Your task to perform on an android device: Search for the best value 4K TV on Best Buy Image 0: 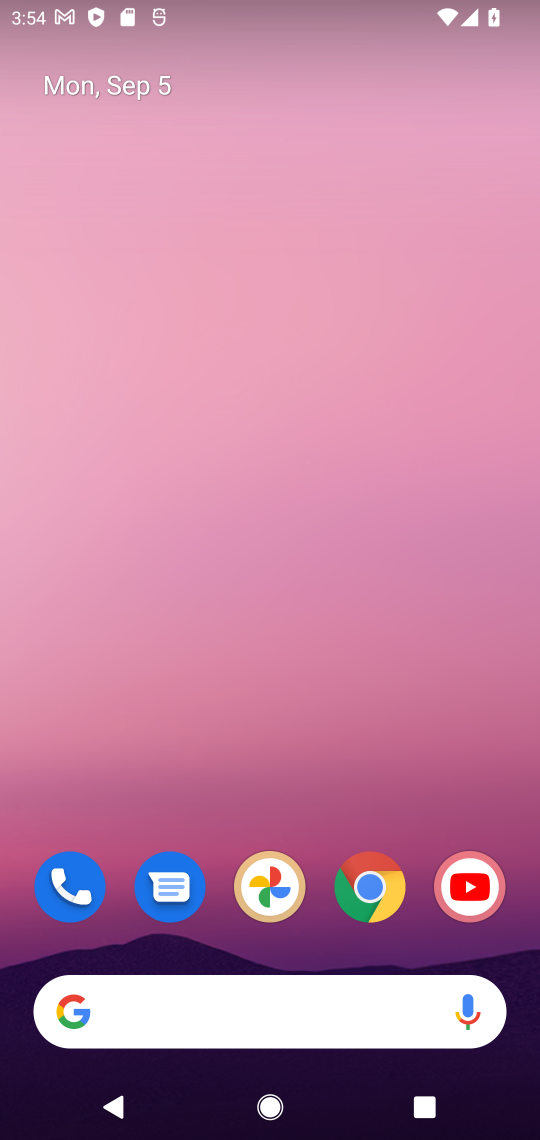
Step 0: drag from (314, 803) to (187, 4)
Your task to perform on an android device: Search for the best value 4K TV on Best Buy Image 1: 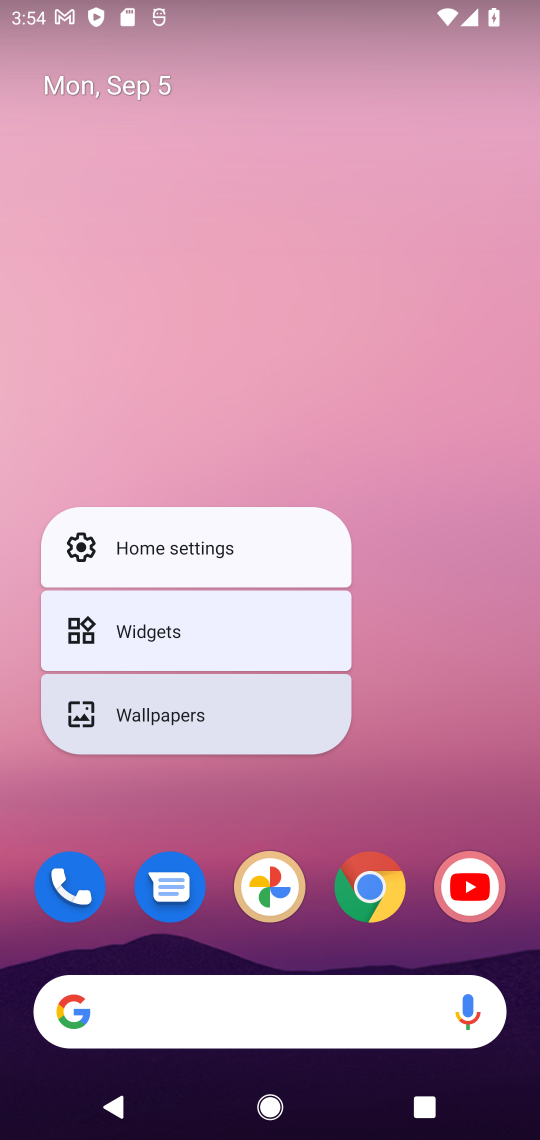
Step 1: click (396, 390)
Your task to perform on an android device: Search for the best value 4K TV on Best Buy Image 2: 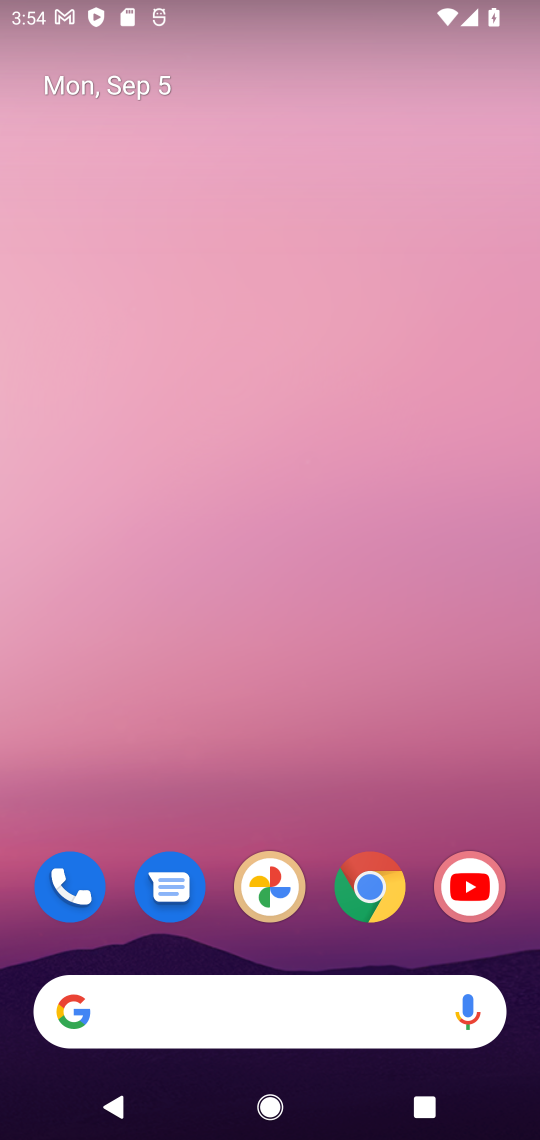
Step 2: drag from (339, 792) to (285, 73)
Your task to perform on an android device: Search for the best value 4K TV on Best Buy Image 3: 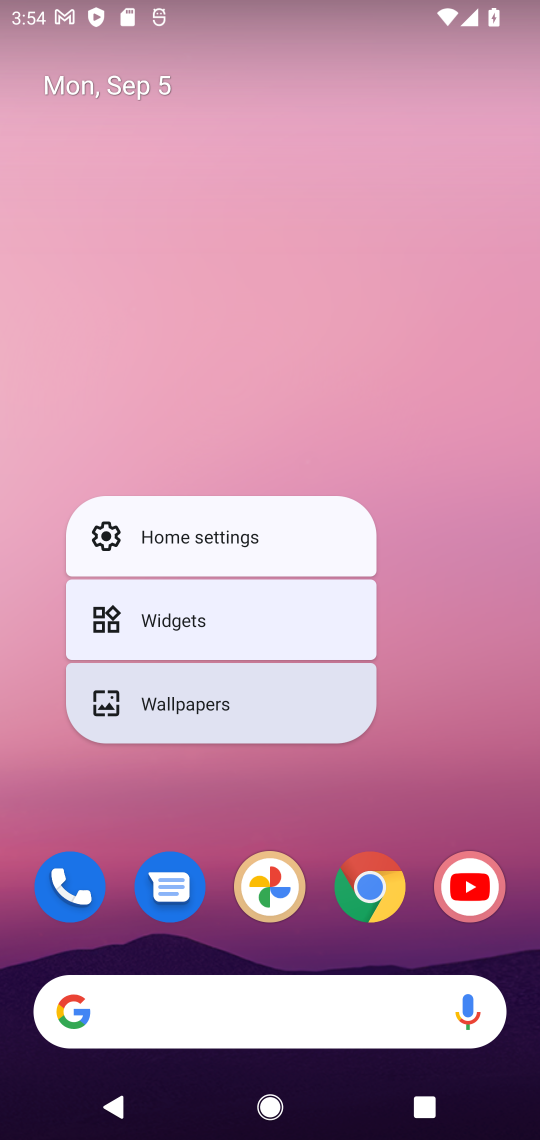
Step 3: click (456, 325)
Your task to perform on an android device: Search for the best value 4K TV on Best Buy Image 4: 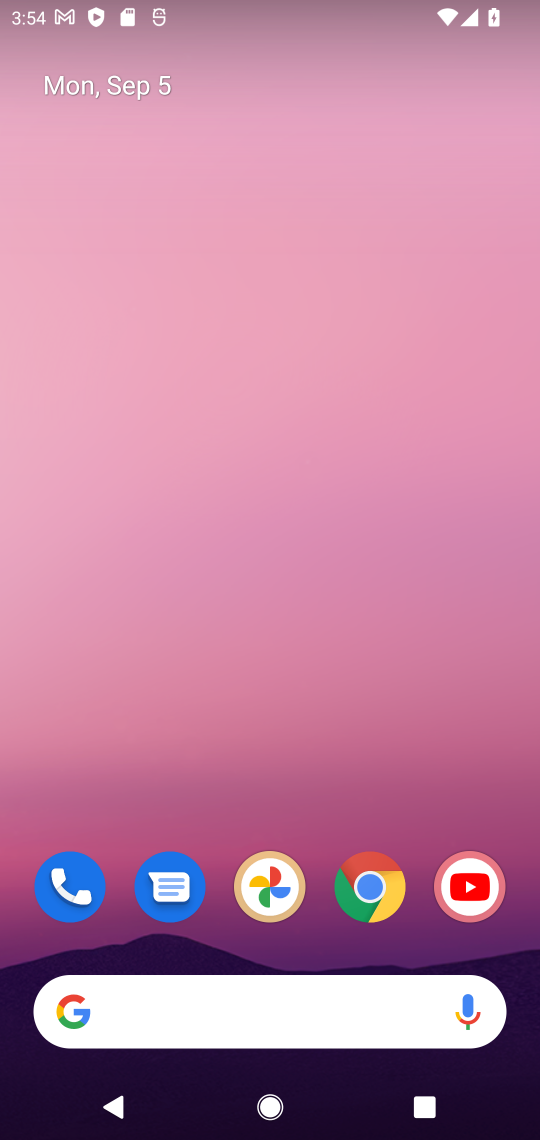
Step 4: drag from (317, 860) to (222, 76)
Your task to perform on an android device: Search for the best value 4K TV on Best Buy Image 5: 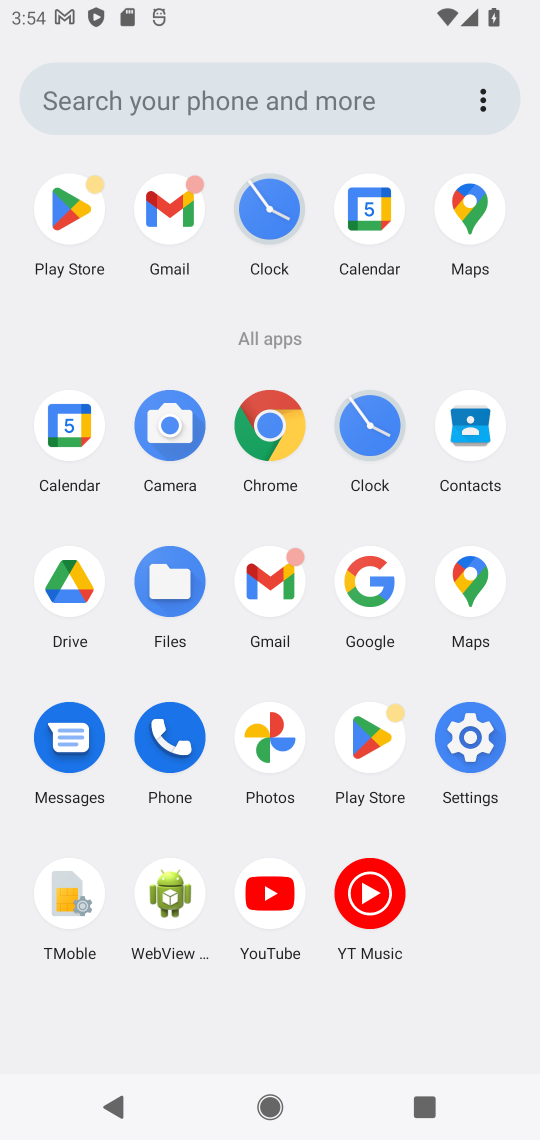
Step 5: click (269, 422)
Your task to perform on an android device: Search for the best value 4K TV on Best Buy Image 6: 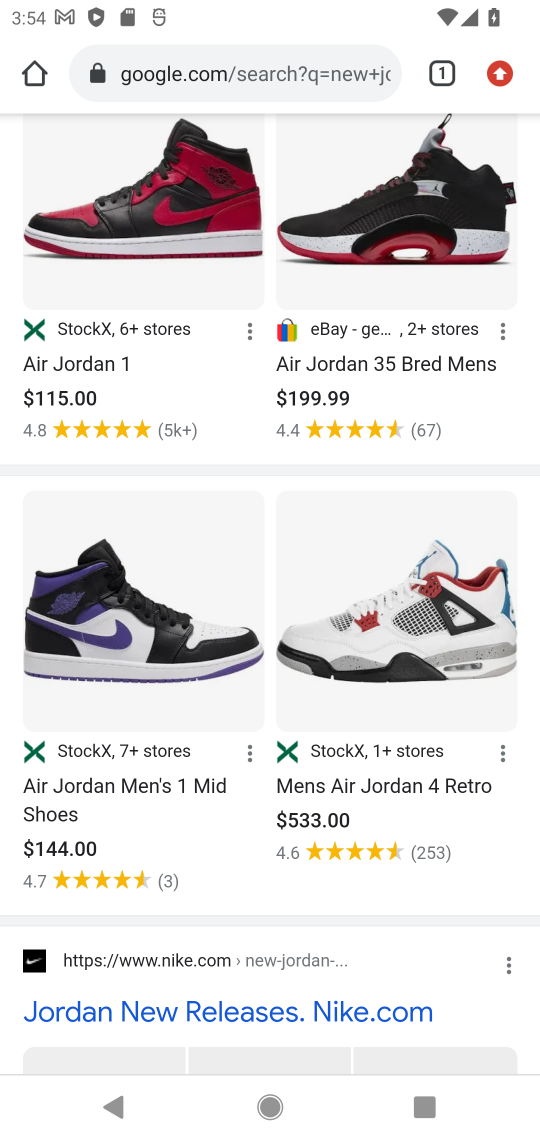
Step 6: click (276, 74)
Your task to perform on an android device: Search for the best value 4K TV on Best Buy Image 7: 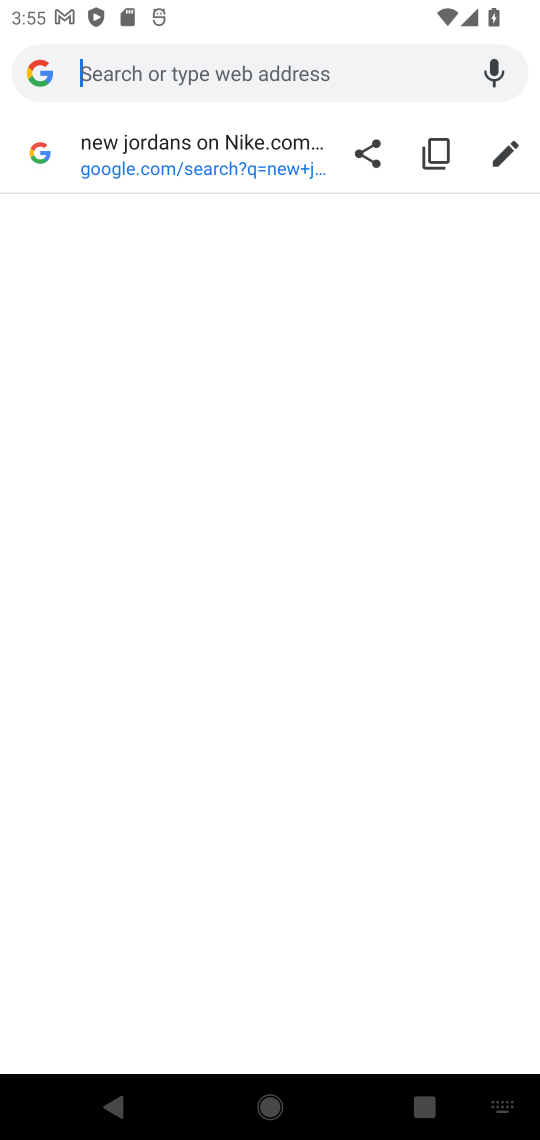
Step 7: type "best value 4K TV on Best Buy"
Your task to perform on an android device: Search for the best value 4K TV on Best Buy Image 8: 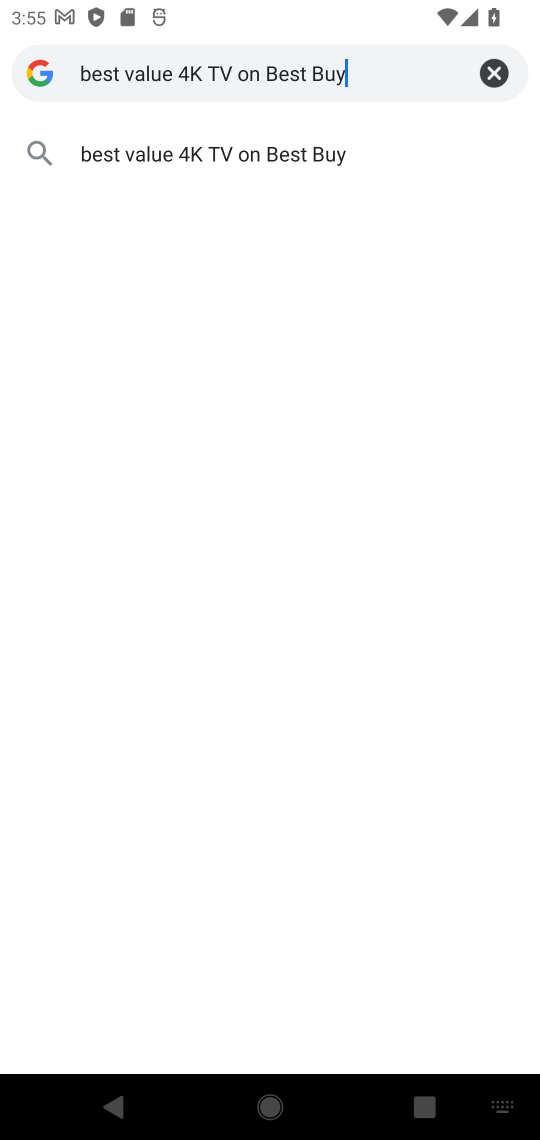
Step 8: press enter
Your task to perform on an android device: Search for the best value 4K TV on Best Buy Image 9: 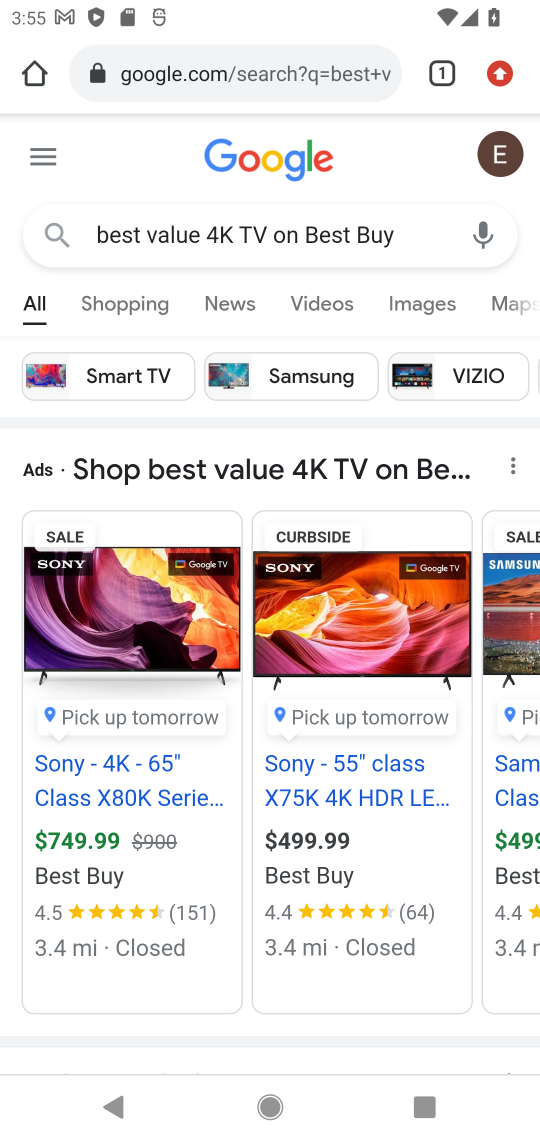
Step 9: drag from (236, 843) to (255, 27)
Your task to perform on an android device: Search for the best value 4K TV on Best Buy Image 10: 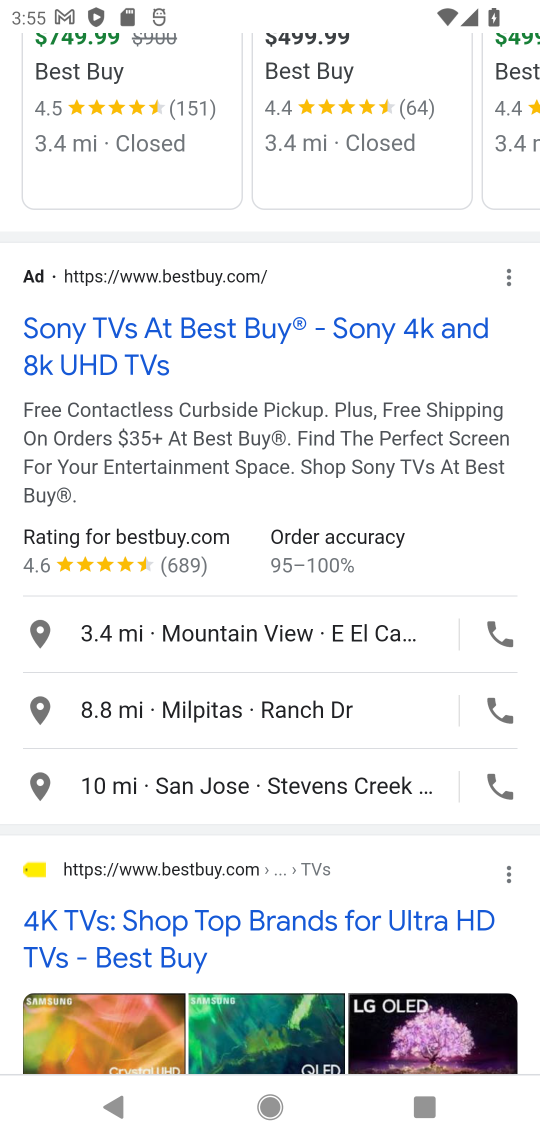
Step 10: drag from (321, 740) to (307, 352)
Your task to perform on an android device: Search for the best value 4K TV on Best Buy Image 11: 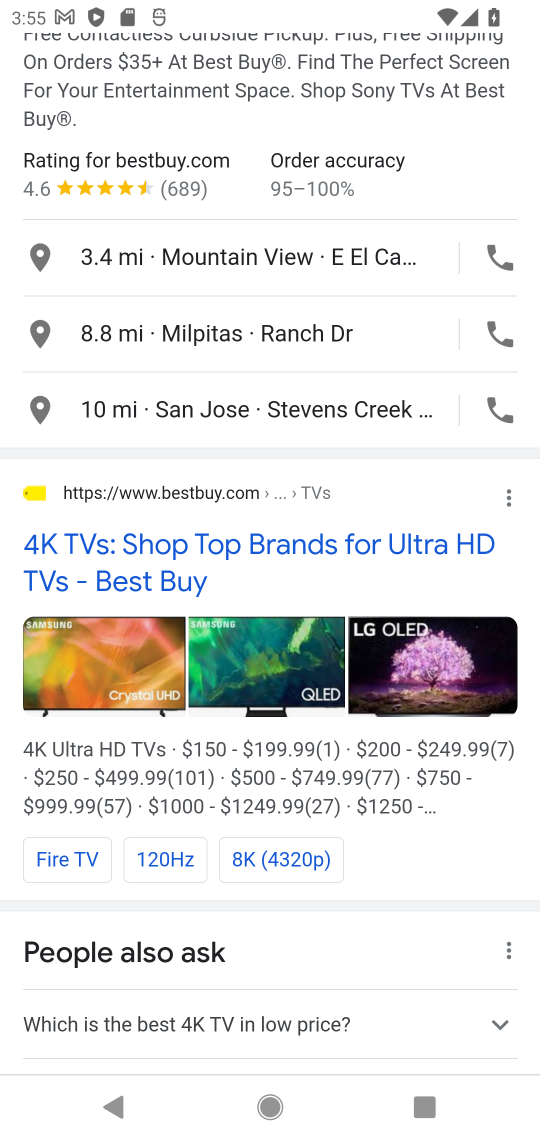
Step 11: click (125, 560)
Your task to perform on an android device: Search for the best value 4K TV on Best Buy Image 12: 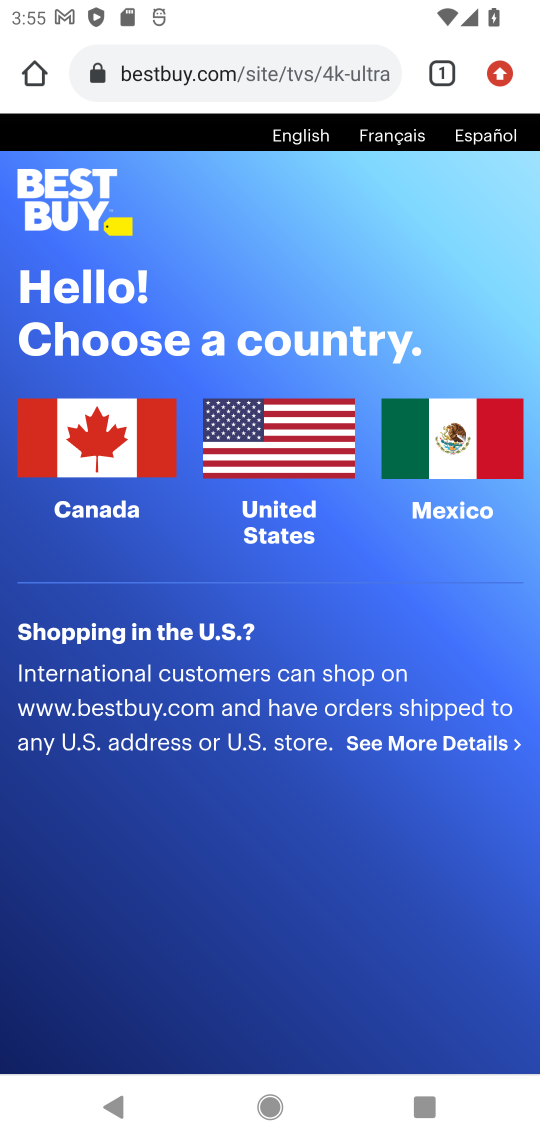
Step 12: click (290, 432)
Your task to perform on an android device: Search for the best value 4K TV on Best Buy Image 13: 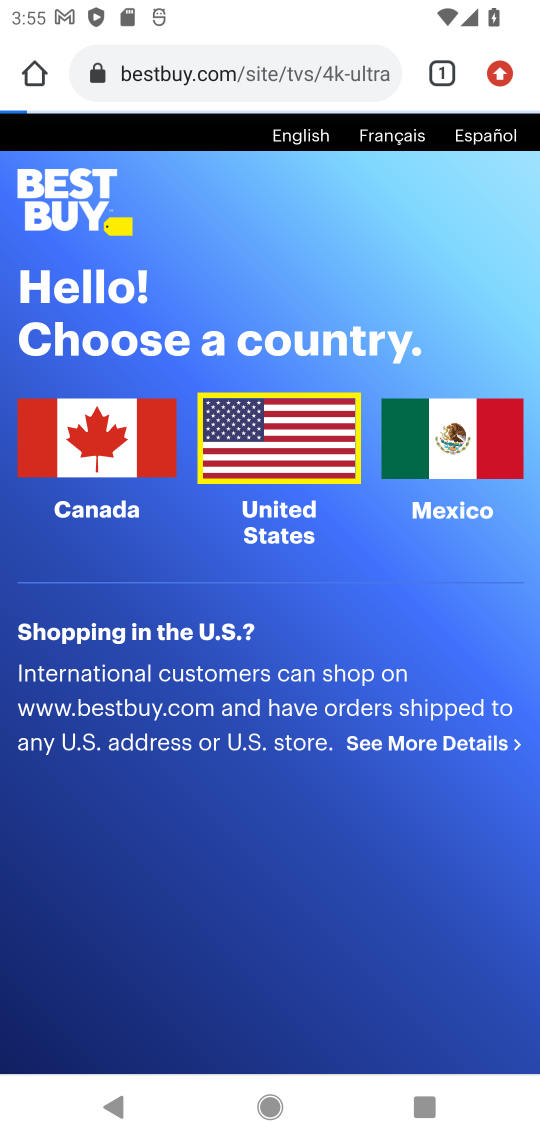
Step 13: click (280, 437)
Your task to perform on an android device: Search for the best value 4K TV on Best Buy Image 14: 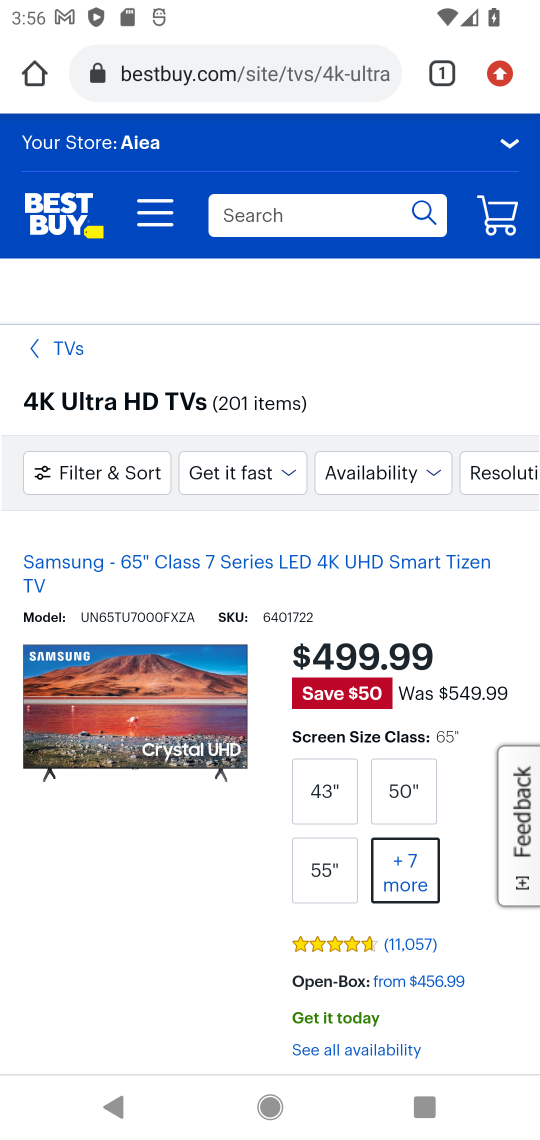
Step 14: task complete